Your task to perform on an android device: Open Reddit.com Image 0: 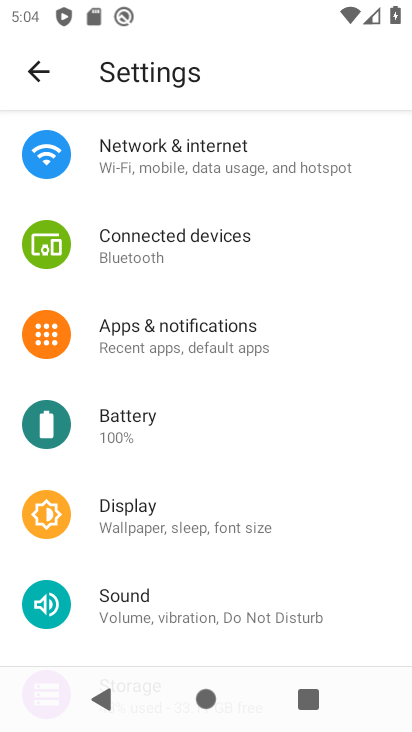
Step 0: press home button
Your task to perform on an android device: Open Reddit.com Image 1: 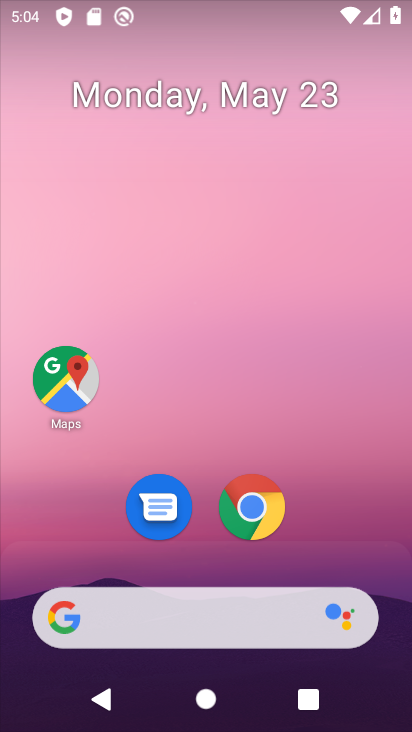
Step 1: click (253, 506)
Your task to perform on an android device: Open Reddit.com Image 2: 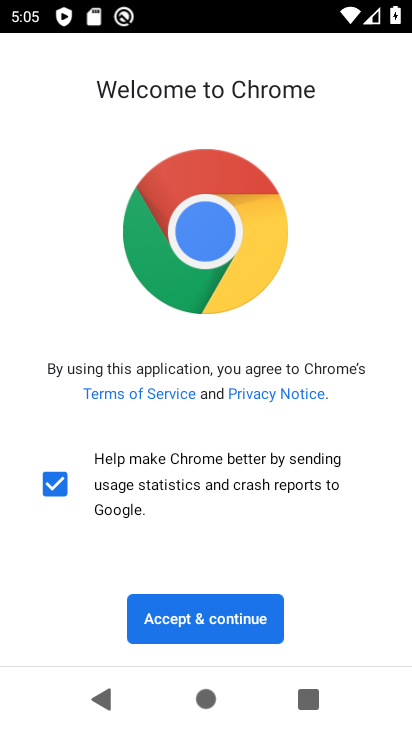
Step 2: click (256, 621)
Your task to perform on an android device: Open Reddit.com Image 3: 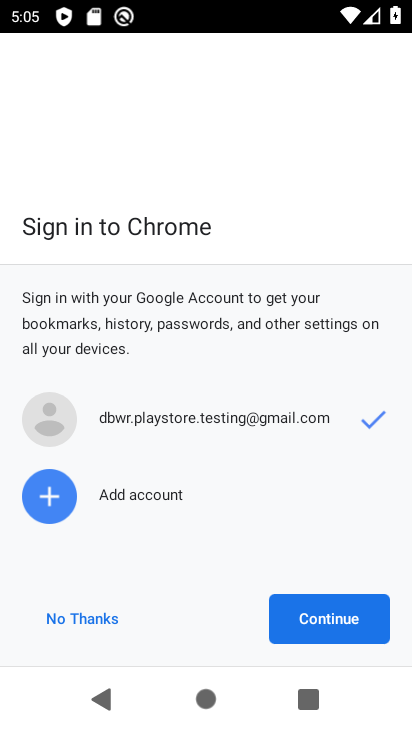
Step 3: click (315, 619)
Your task to perform on an android device: Open Reddit.com Image 4: 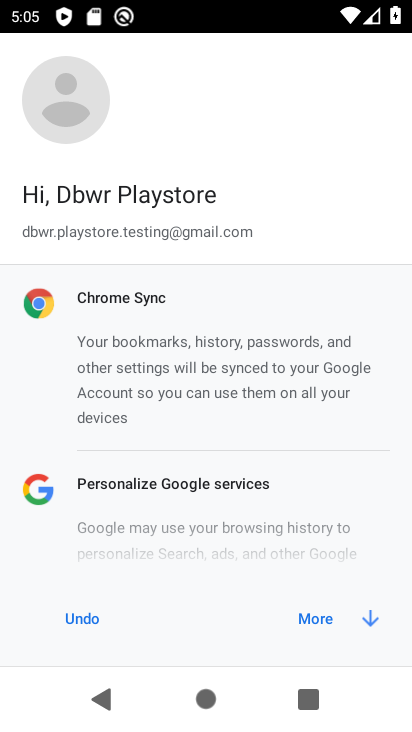
Step 4: click (325, 621)
Your task to perform on an android device: Open Reddit.com Image 5: 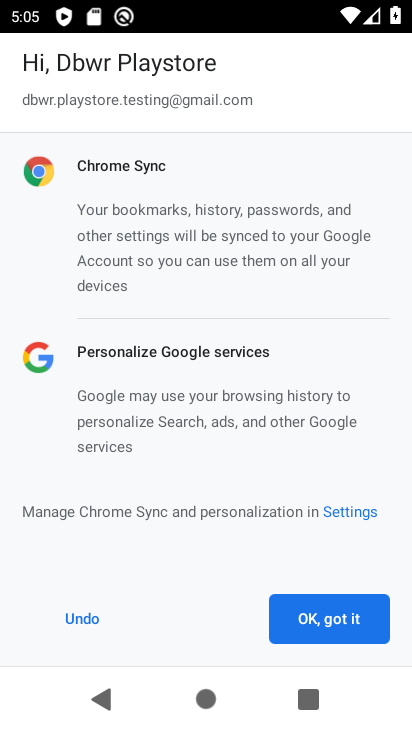
Step 5: click (325, 621)
Your task to perform on an android device: Open Reddit.com Image 6: 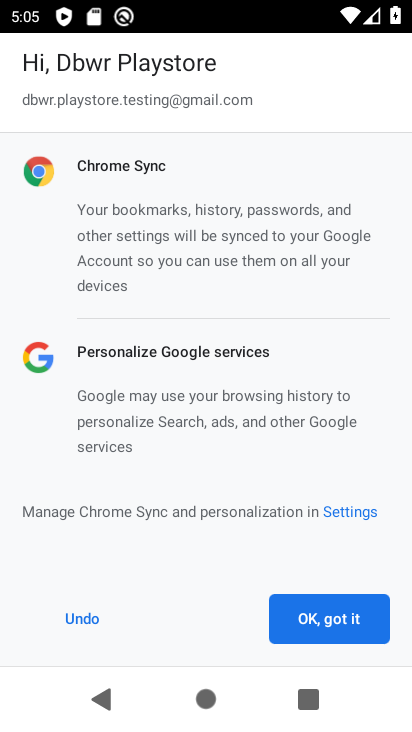
Step 6: click (325, 621)
Your task to perform on an android device: Open Reddit.com Image 7: 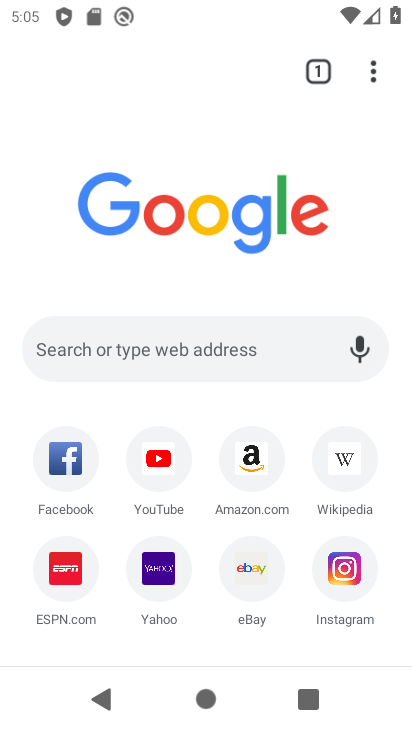
Step 7: click (179, 353)
Your task to perform on an android device: Open Reddit.com Image 8: 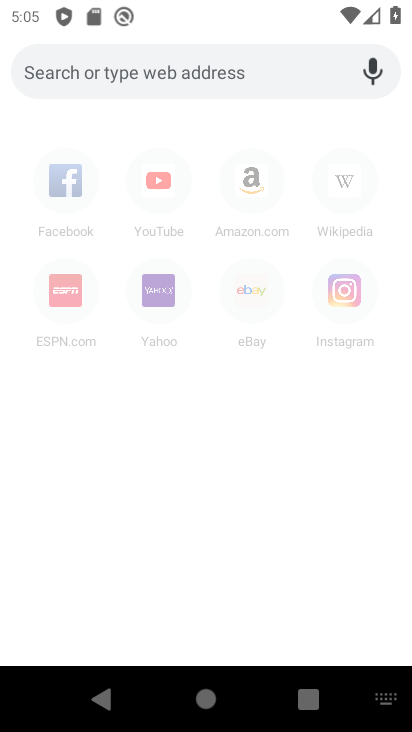
Step 8: type " Reddit.com"
Your task to perform on an android device: Open Reddit.com Image 9: 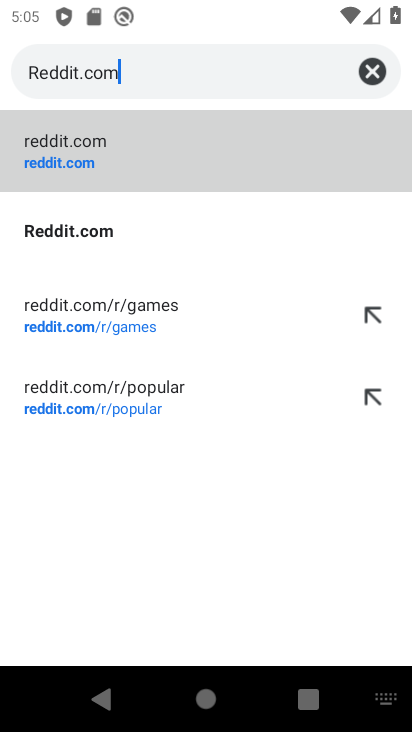
Step 9: click (81, 164)
Your task to perform on an android device: Open Reddit.com Image 10: 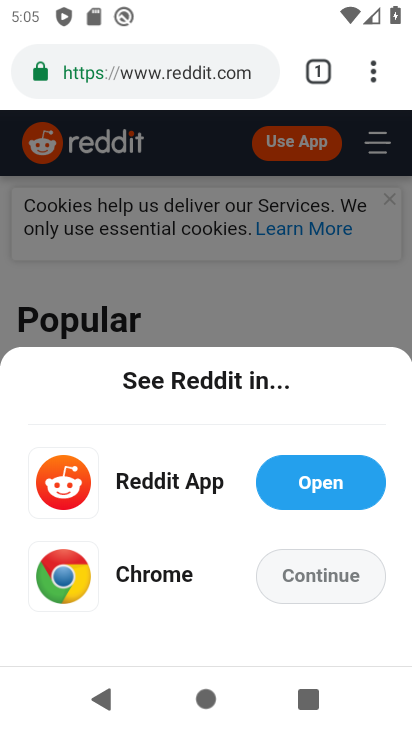
Step 10: task complete